Your task to perform on an android device: Open ESPN.com Image 0: 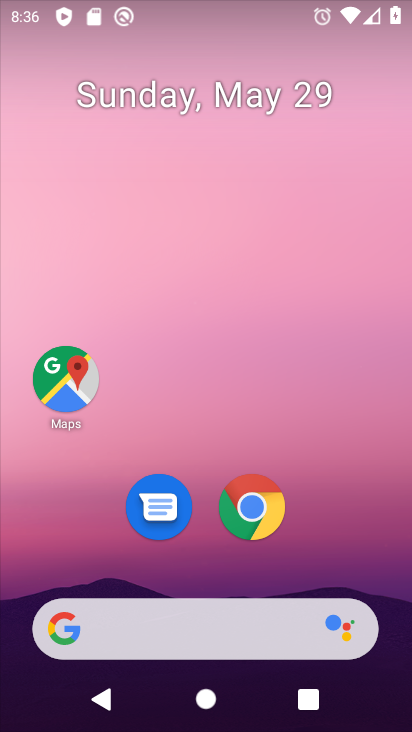
Step 0: click (259, 508)
Your task to perform on an android device: Open ESPN.com Image 1: 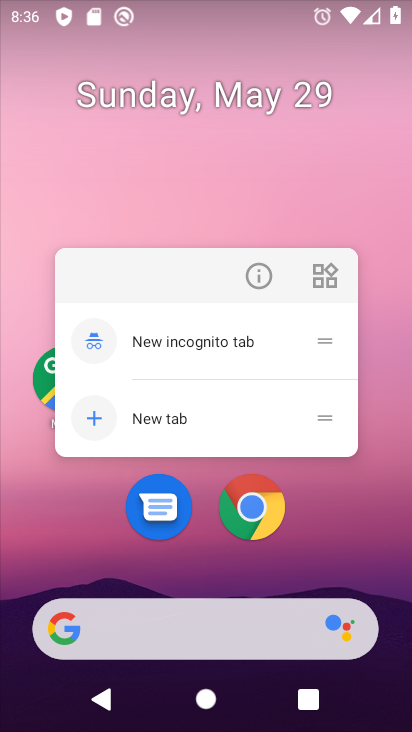
Step 1: click (250, 535)
Your task to perform on an android device: Open ESPN.com Image 2: 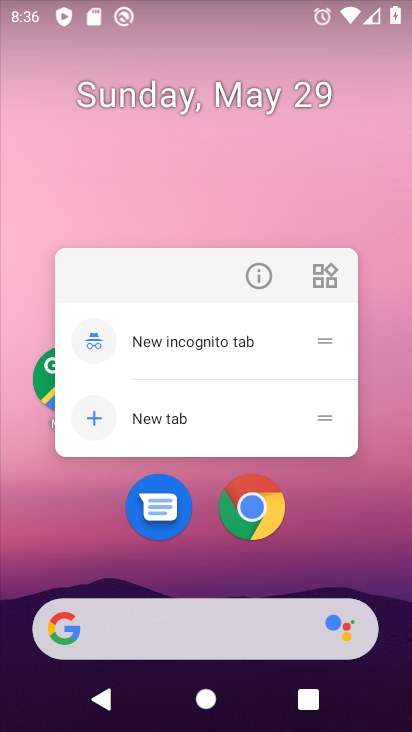
Step 2: click (263, 508)
Your task to perform on an android device: Open ESPN.com Image 3: 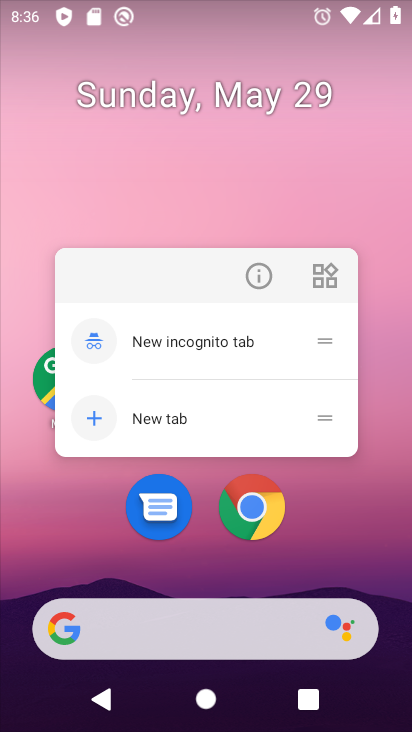
Step 3: click (238, 517)
Your task to perform on an android device: Open ESPN.com Image 4: 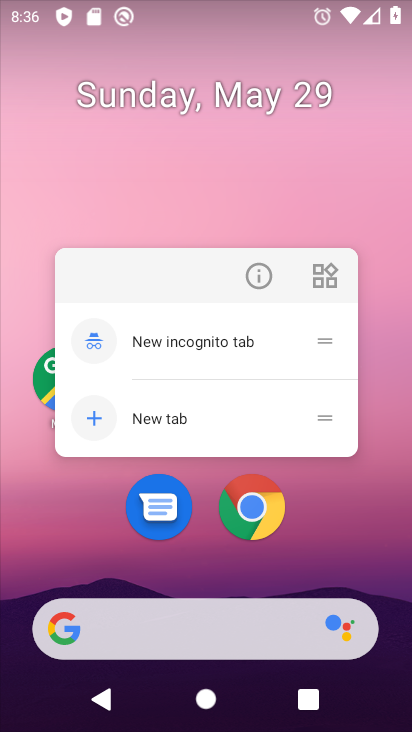
Step 4: click (255, 517)
Your task to perform on an android device: Open ESPN.com Image 5: 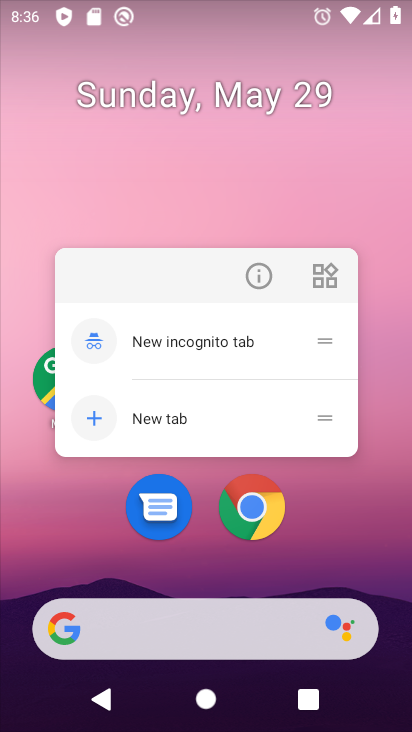
Step 5: click (287, 509)
Your task to perform on an android device: Open ESPN.com Image 6: 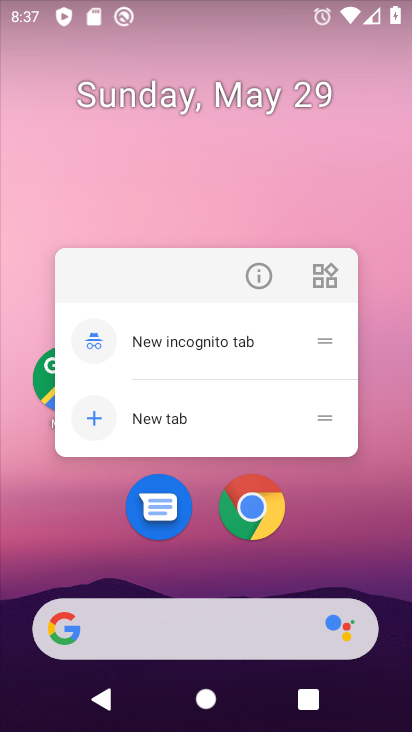
Step 6: click (258, 499)
Your task to perform on an android device: Open ESPN.com Image 7: 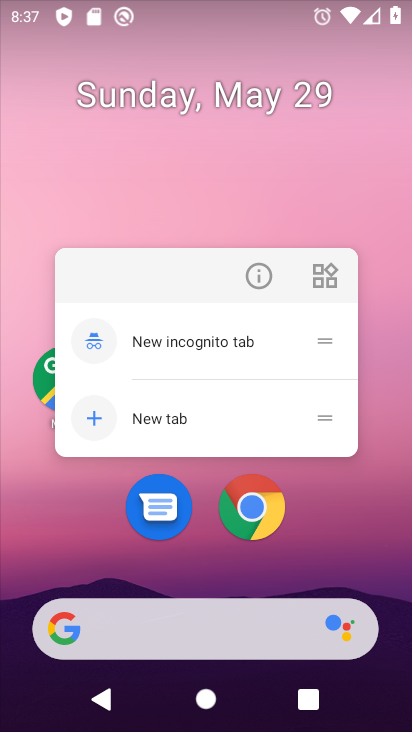
Step 7: click (255, 511)
Your task to perform on an android device: Open ESPN.com Image 8: 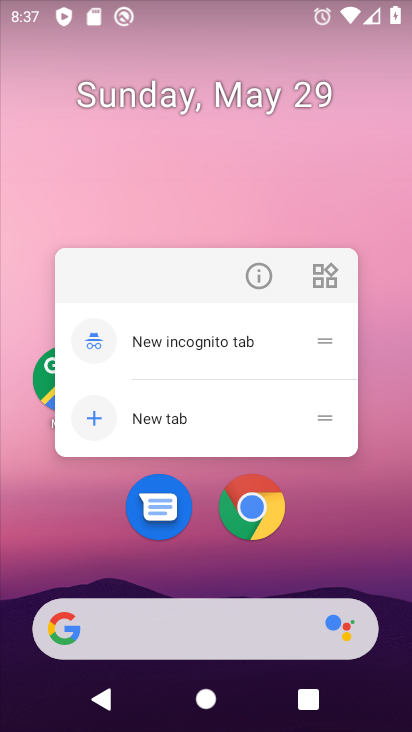
Step 8: click (270, 536)
Your task to perform on an android device: Open ESPN.com Image 9: 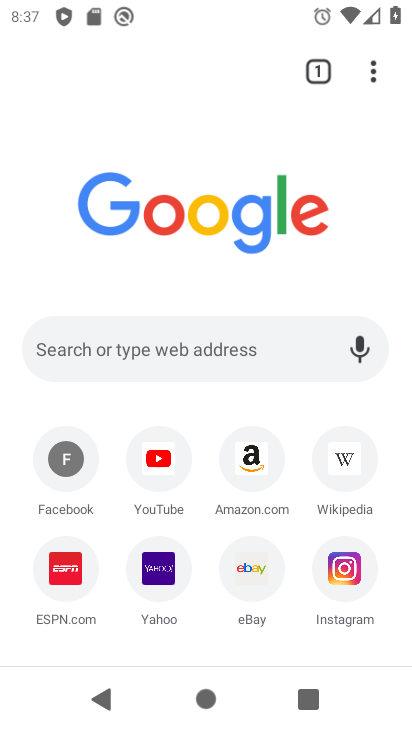
Step 9: click (61, 574)
Your task to perform on an android device: Open ESPN.com Image 10: 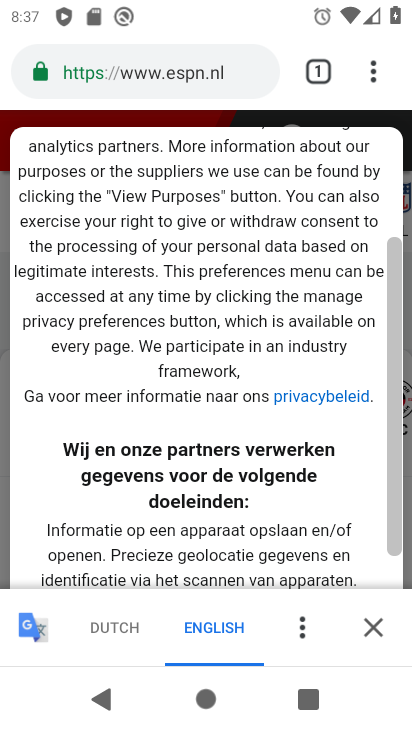
Step 10: click (368, 633)
Your task to perform on an android device: Open ESPN.com Image 11: 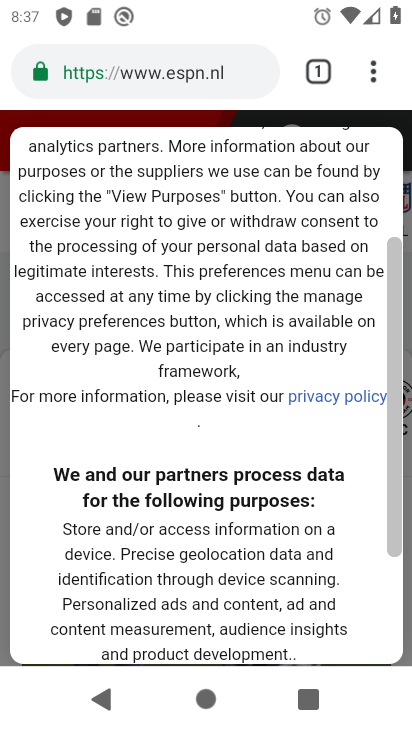
Step 11: drag from (189, 618) to (302, 198)
Your task to perform on an android device: Open ESPN.com Image 12: 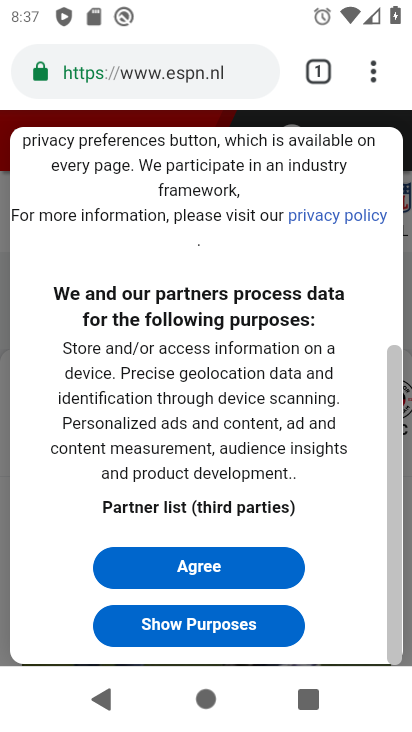
Step 12: click (239, 565)
Your task to perform on an android device: Open ESPN.com Image 13: 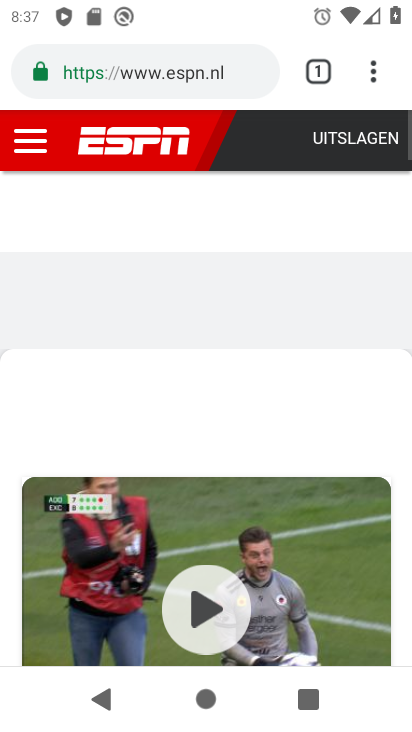
Step 13: task complete